Your task to perform on an android device: Open Youtube and go to "Your channel" Image 0: 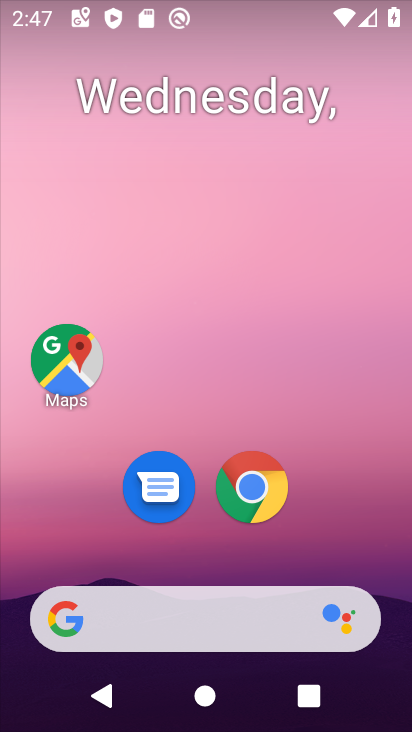
Step 0: drag from (335, 513) to (268, 33)
Your task to perform on an android device: Open Youtube and go to "Your channel" Image 1: 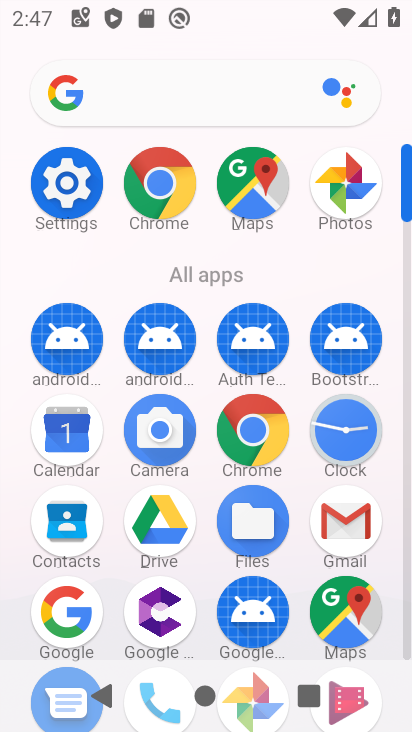
Step 1: drag from (292, 477) to (299, 156)
Your task to perform on an android device: Open Youtube and go to "Your channel" Image 2: 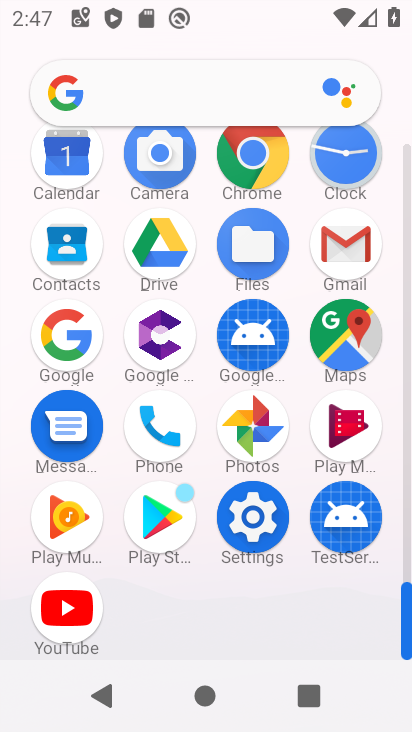
Step 2: click (81, 598)
Your task to perform on an android device: Open Youtube and go to "Your channel" Image 3: 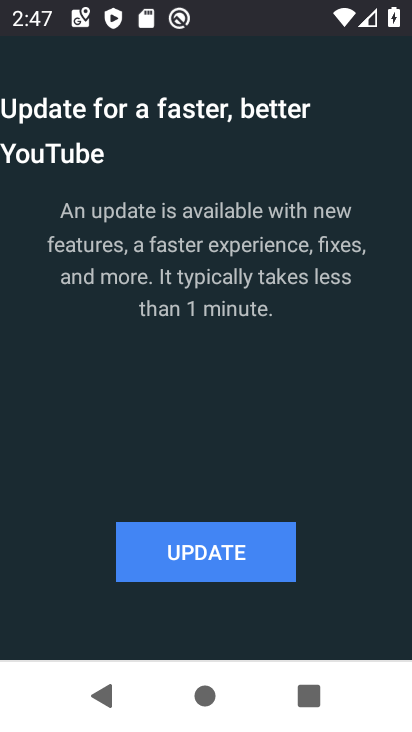
Step 3: press home button
Your task to perform on an android device: Open Youtube and go to "Your channel" Image 4: 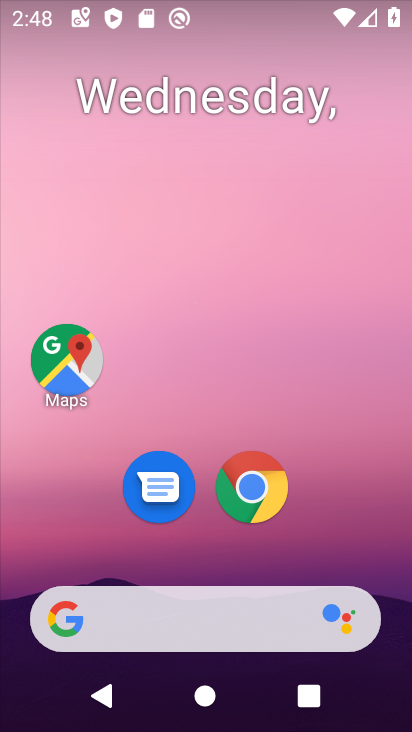
Step 4: drag from (325, 545) to (255, 49)
Your task to perform on an android device: Open Youtube and go to "Your channel" Image 5: 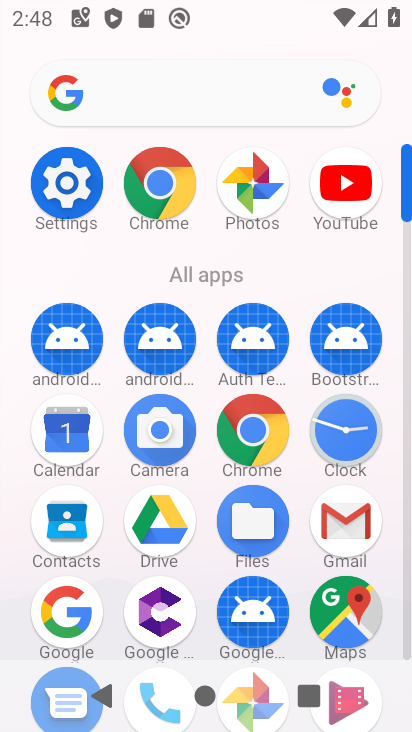
Step 5: click (334, 191)
Your task to perform on an android device: Open Youtube and go to "Your channel" Image 6: 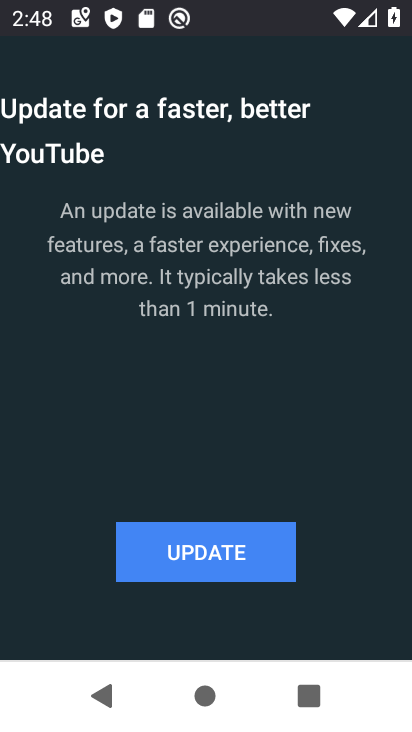
Step 6: click (249, 541)
Your task to perform on an android device: Open Youtube and go to "Your channel" Image 7: 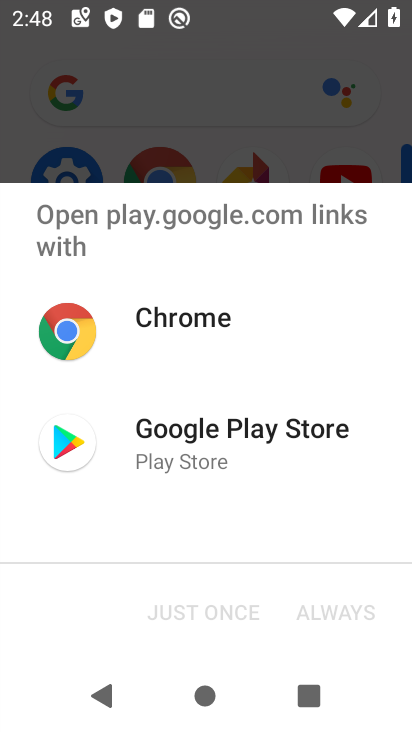
Step 7: click (175, 441)
Your task to perform on an android device: Open Youtube and go to "Your channel" Image 8: 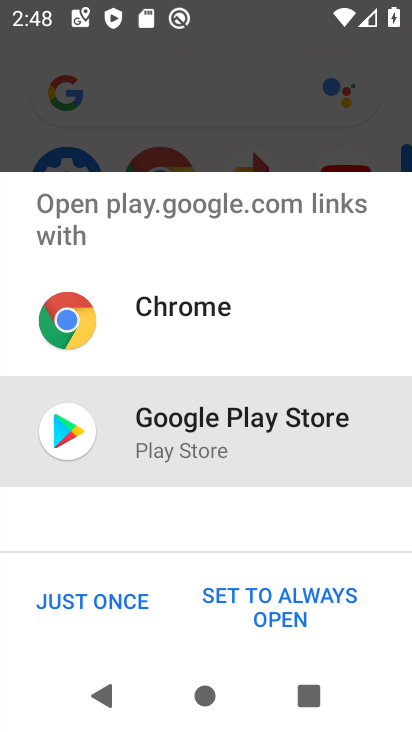
Step 8: click (135, 593)
Your task to perform on an android device: Open Youtube and go to "Your channel" Image 9: 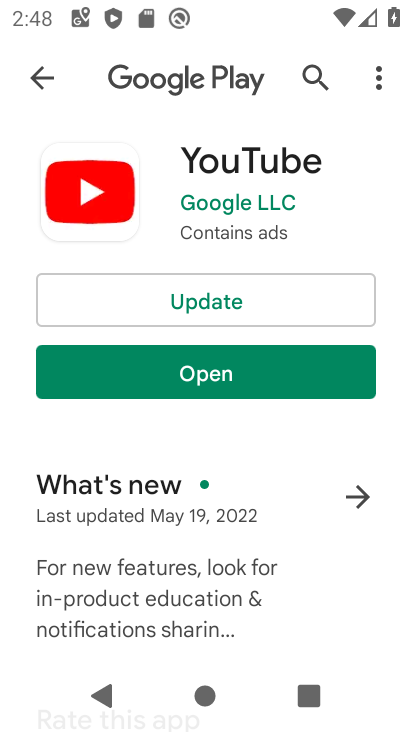
Step 9: click (322, 304)
Your task to perform on an android device: Open Youtube and go to "Your channel" Image 10: 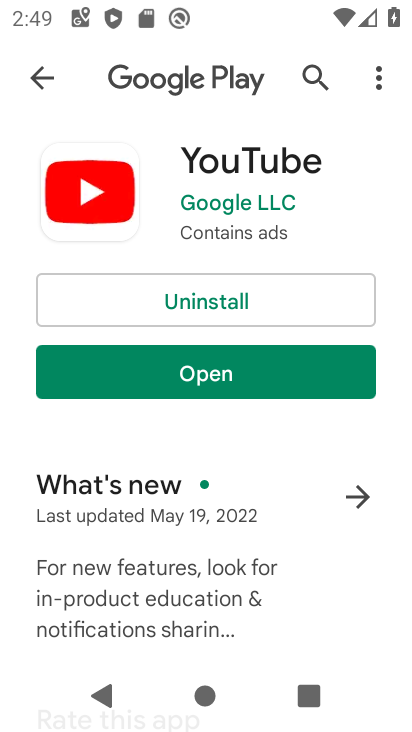
Step 10: click (256, 365)
Your task to perform on an android device: Open Youtube and go to "Your channel" Image 11: 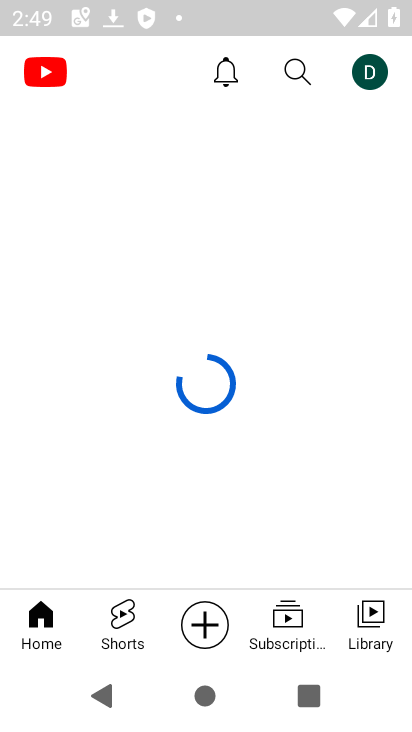
Step 11: click (375, 77)
Your task to perform on an android device: Open Youtube and go to "Your channel" Image 12: 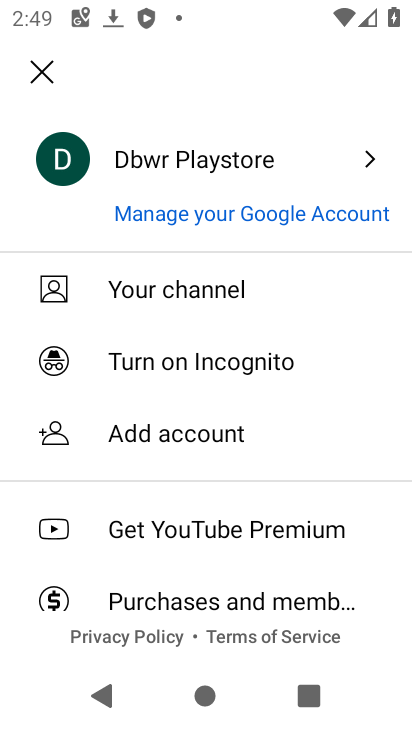
Step 12: click (203, 290)
Your task to perform on an android device: Open Youtube and go to "Your channel" Image 13: 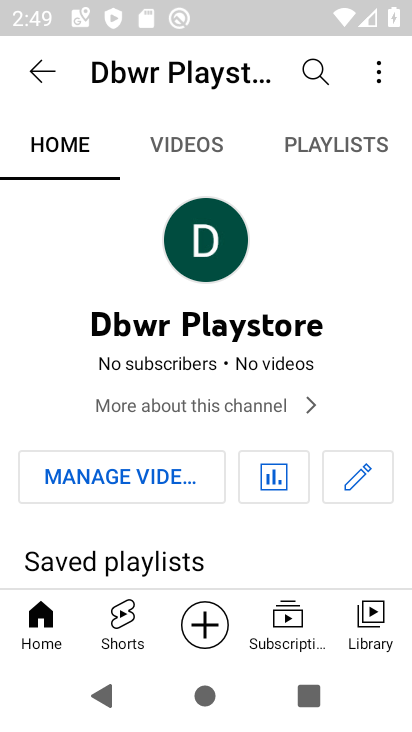
Step 13: task complete